Your task to perform on an android device: open app "Google Pay: Save, Pay, Manage" (install if not already installed) Image 0: 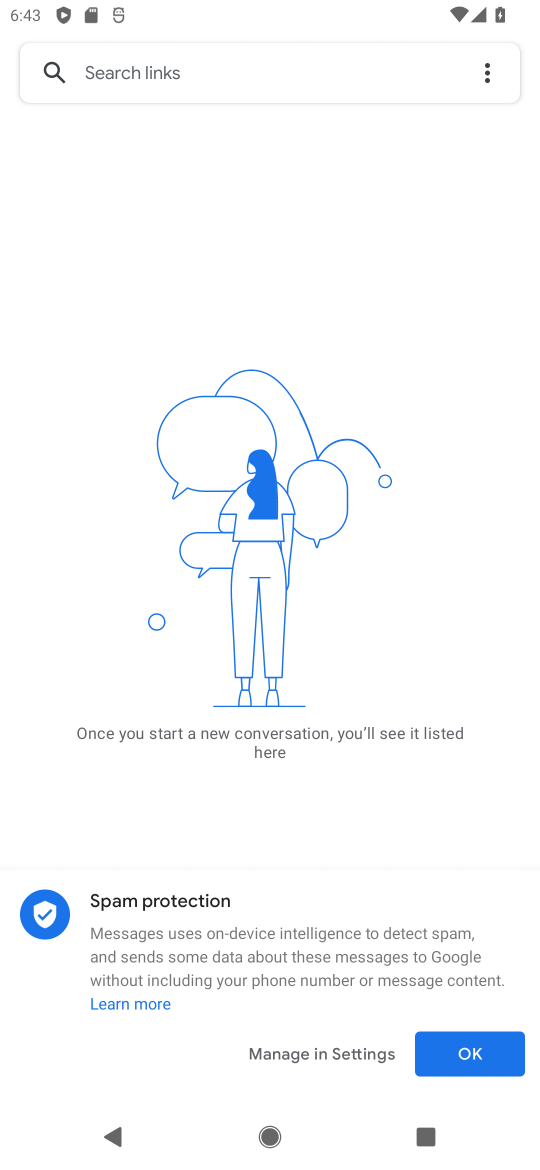
Step 0: press home button
Your task to perform on an android device: open app "Google Pay: Save, Pay, Manage" (install if not already installed) Image 1: 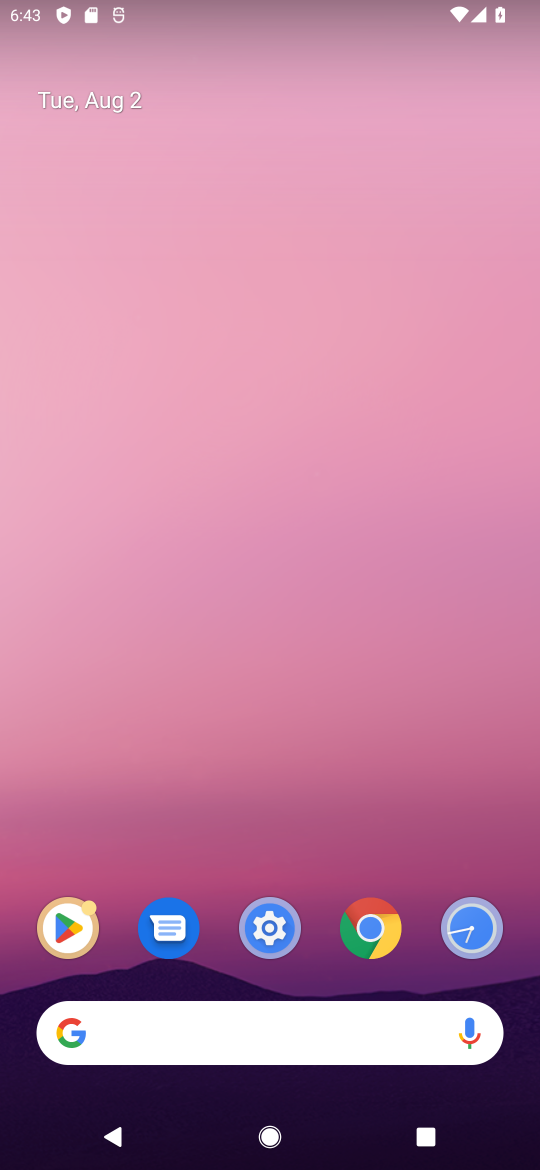
Step 1: click (81, 909)
Your task to perform on an android device: open app "Google Pay: Save, Pay, Manage" (install if not already installed) Image 2: 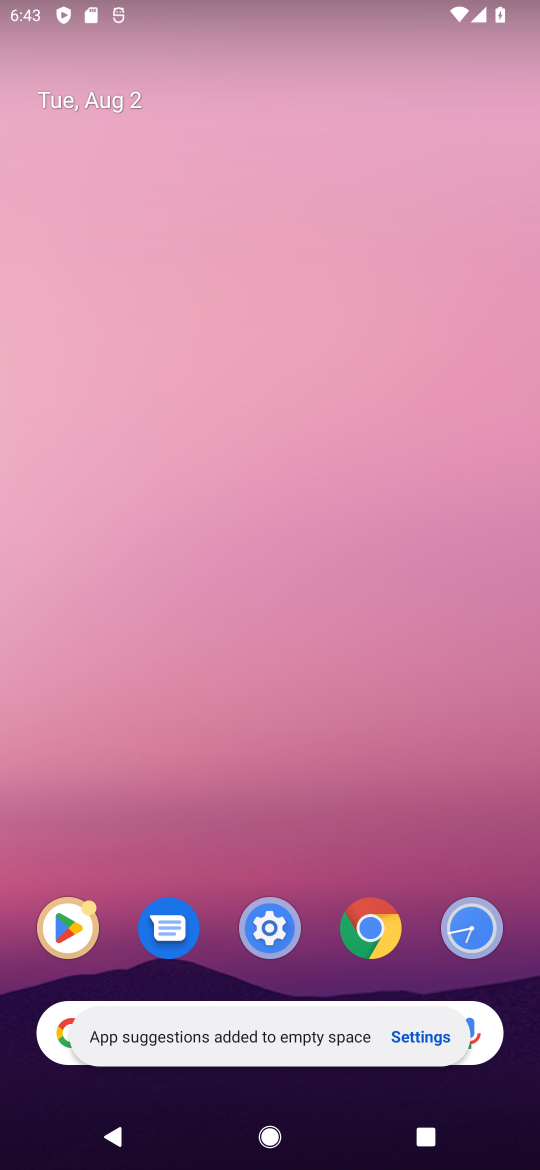
Step 2: click (71, 915)
Your task to perform on an android device: open app "Google Pay: Save, Pay, Manage" (install if not already installed) Image 3: 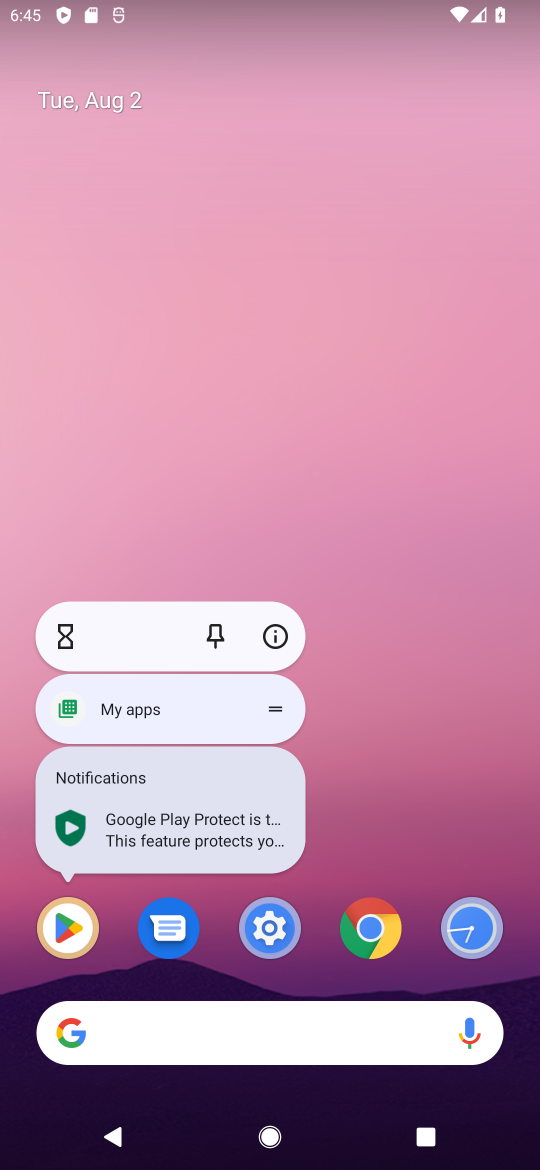
Step 3: click (39, 934)
Your task to perform on an android device: open app "Google Pay: Save, Pay, Manage" (install if not already installed) Image 4: 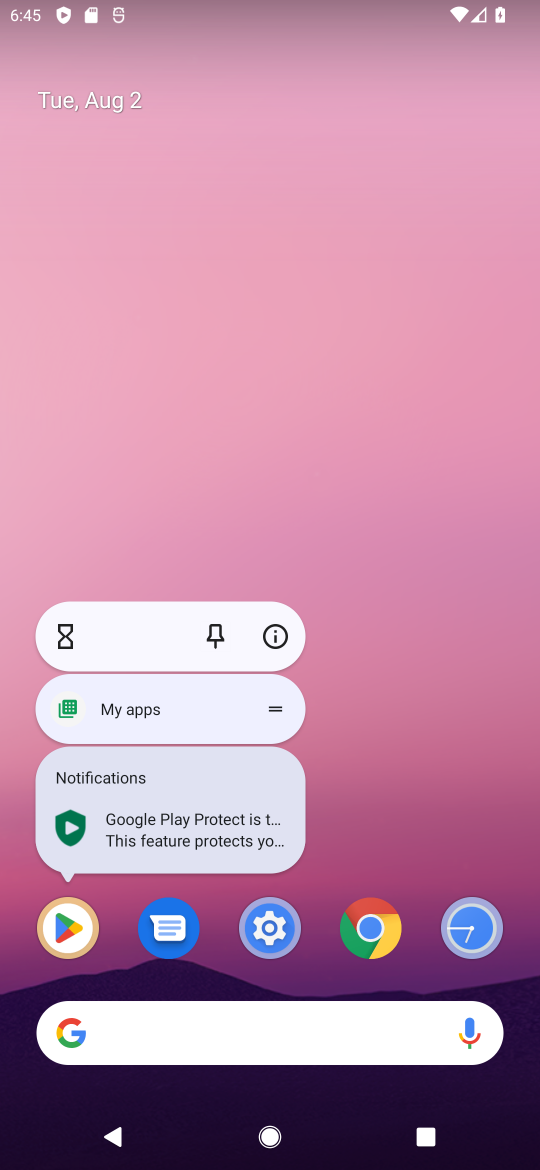
Step 4: click (44, 939)
Your task to perform on an android device: open app "Google Pay: Save, Pay, Manage" (install if not already installed) Image 5: 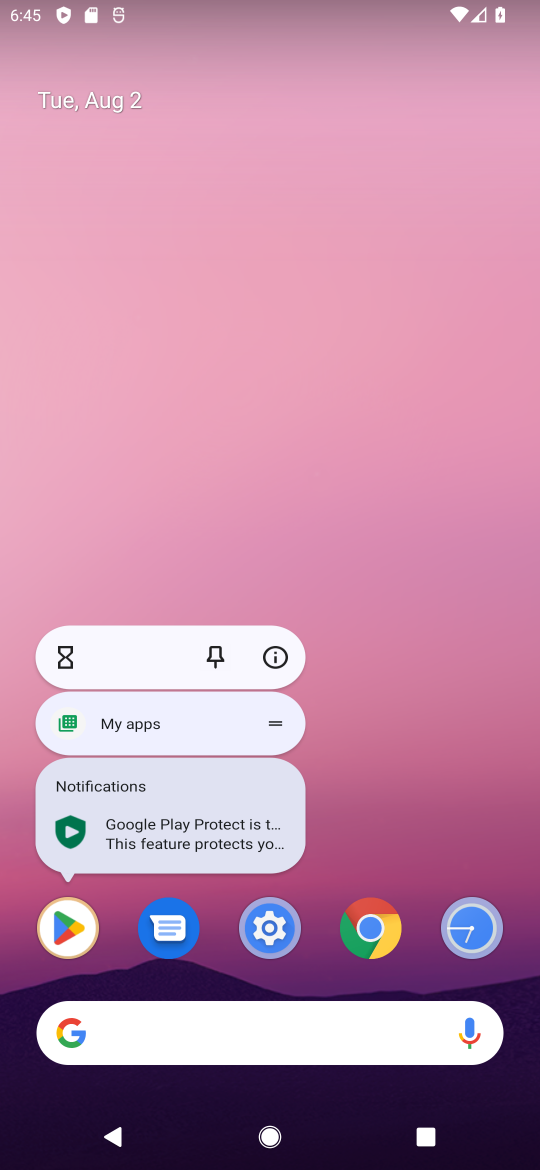
Step 5: click (101, 946)
Your task to perform on an android device: open app "Google Pay: Save, Pay, Manage" (install if not already installed) Image 6: 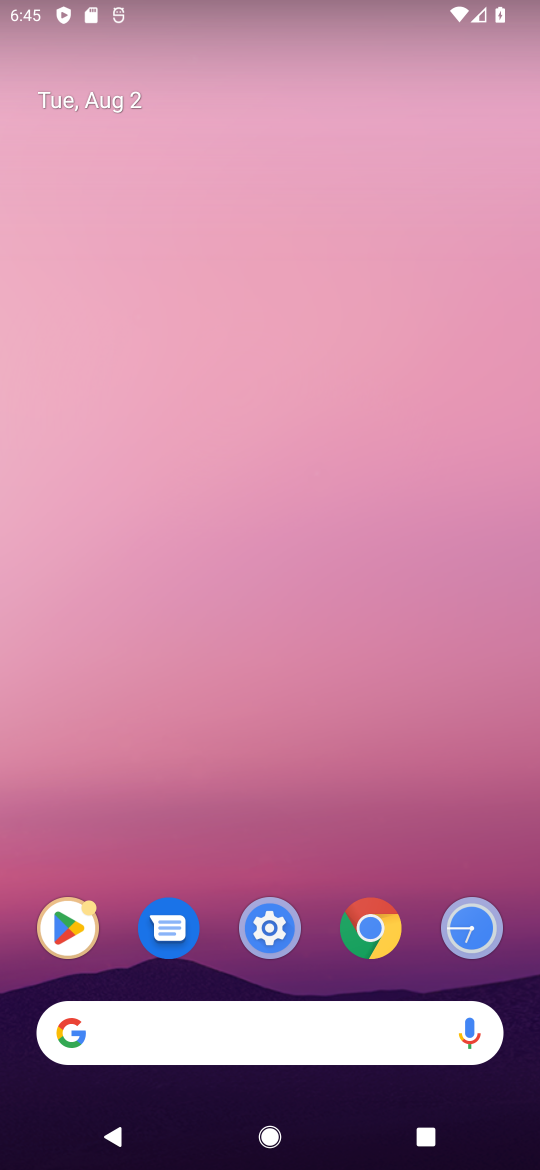
Step 6: click (56, 908)
Your task to perform on an android device: open app "Google Pay: Save, Pay, Manage" (install if not already installed) Image 7: 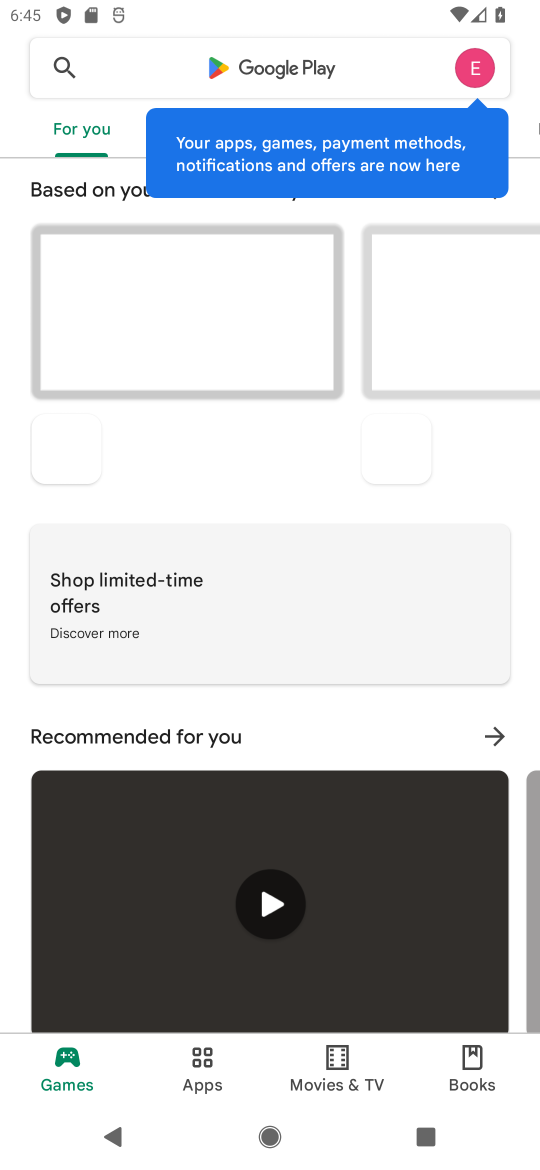
Step 7: click (349, 61)
Your task to perform on an android device: open app "Google Pay: Save, Pay, Manage" (install if not already installed) Image 8: 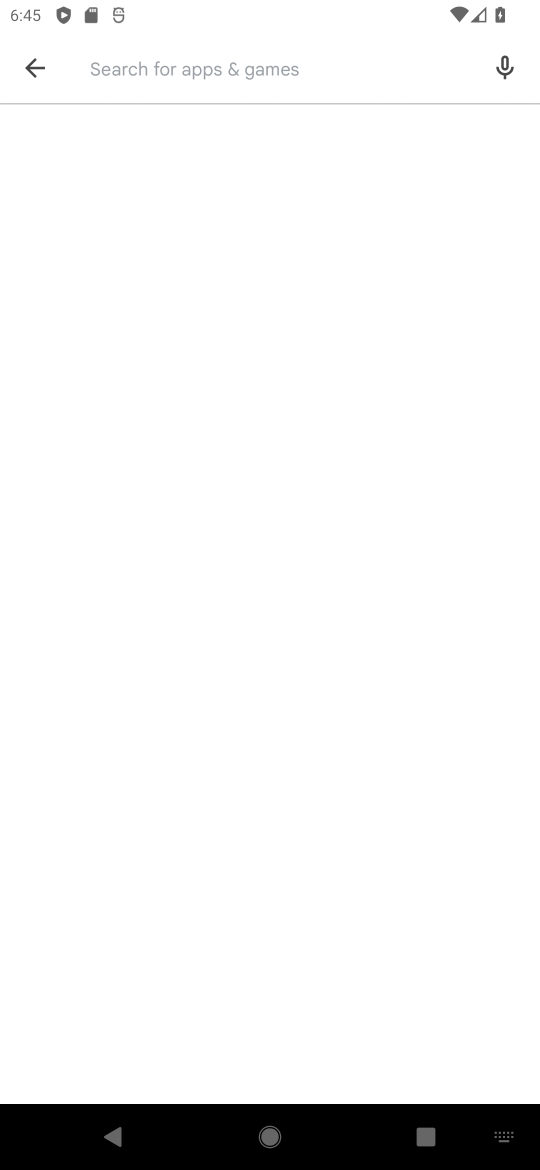
Step 8: type "google pay "
Your task to perform on an android device: open app "Google Pay: Save, Pay, Manage" (install if not already installed) Image 9: 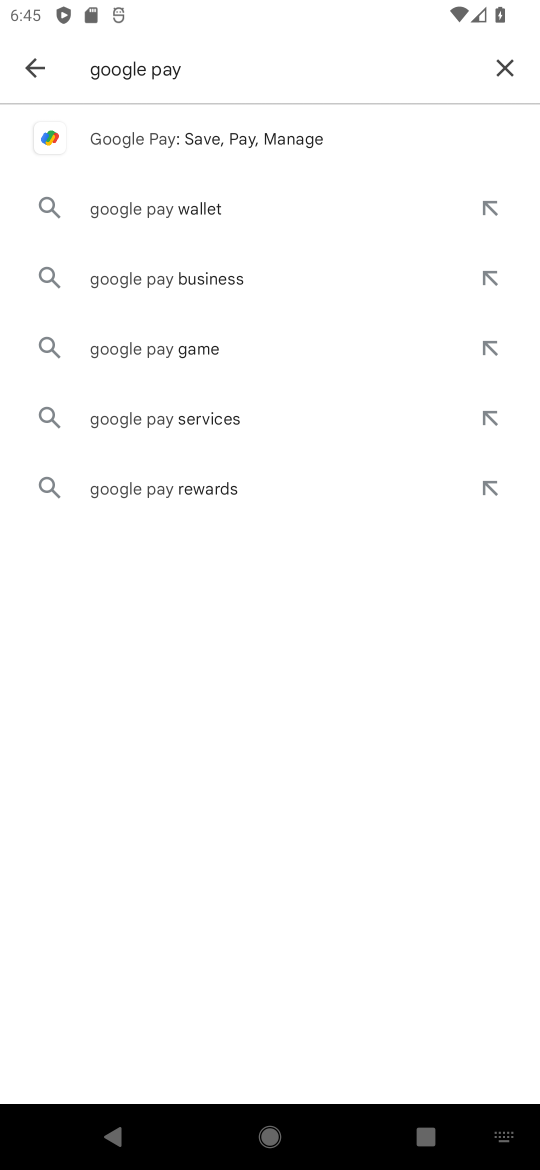
Step 9: click (355, 138)
Your task to perform on an android device: open app "Google Pay: Save, Pay, Manage" (install if not already installed) Image 10: 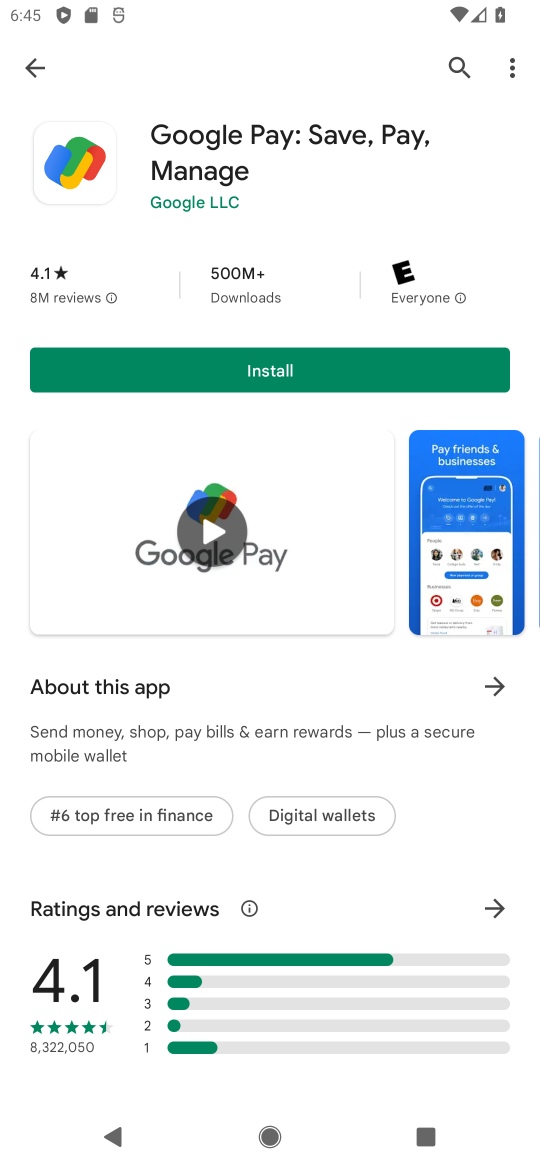
Step 10: click (359, 357)
Your task to perform on an android device: open app "Google Pay: Save, Pay, Manage" (install if not already installed) Image 11: 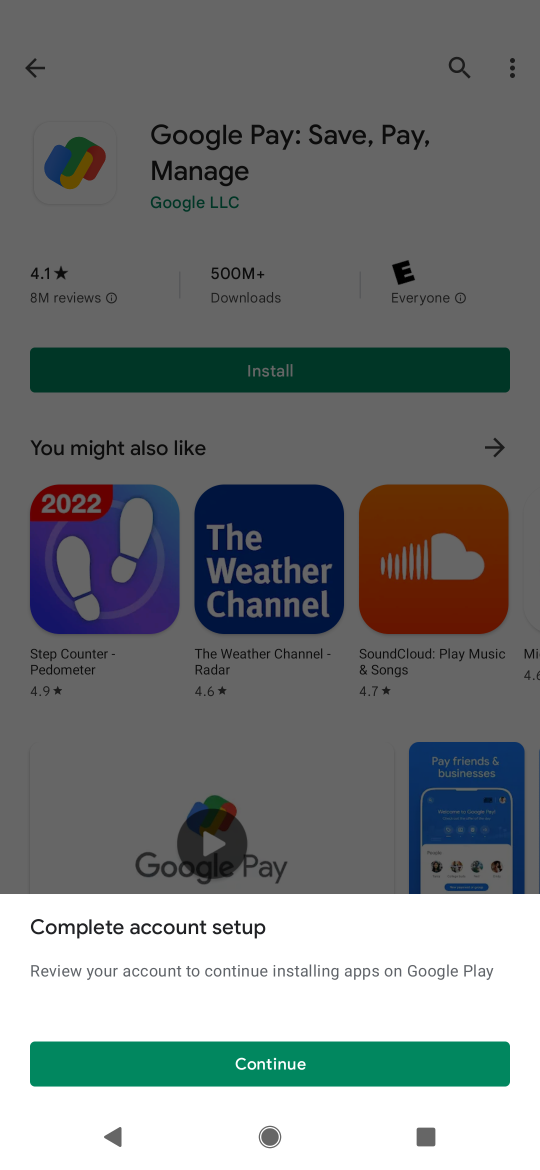
Step 11: click (436, 1079)
Your task to perform on an android device: open app "Google Pay: Save, Pay, Manage" (install if not already installed) Image 12: 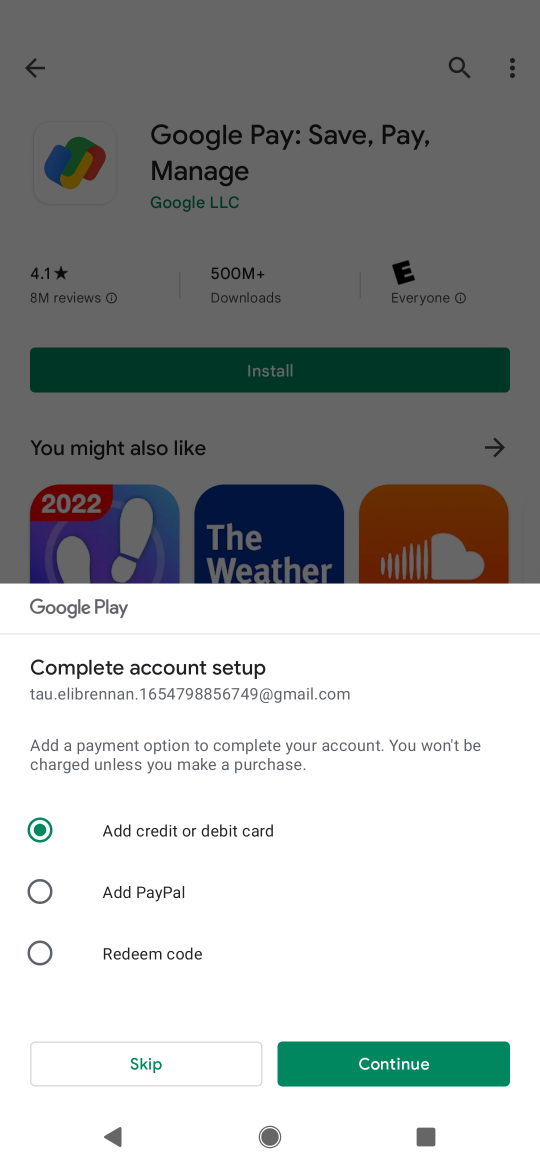
Step 12: click (149, 1073)
Your task to perform on an android device: open app "Google Pay: Save, Pay, Manage" (install if not already installed) Image 13: 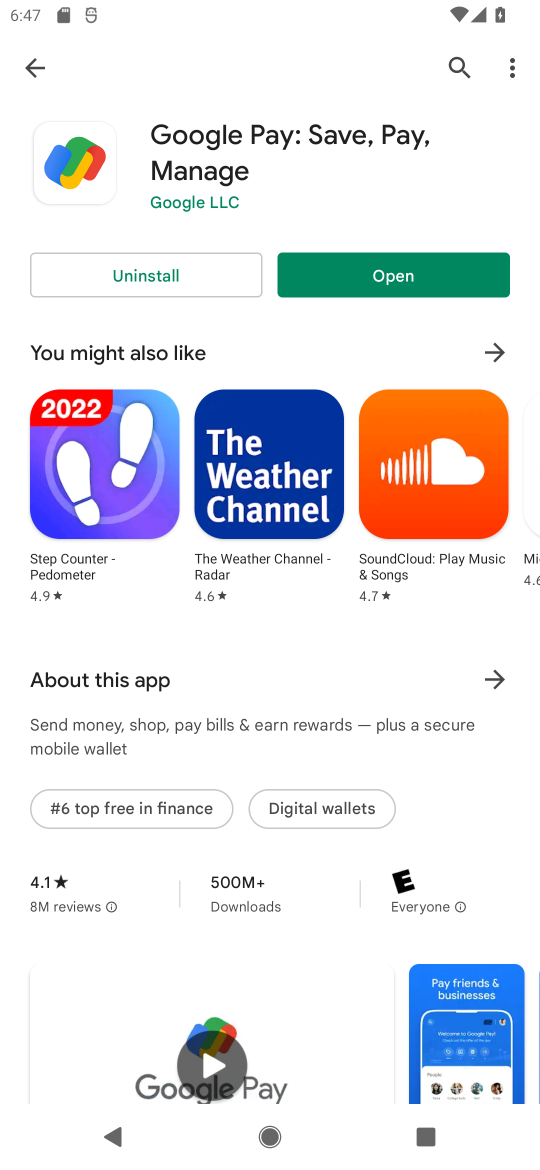
Step 13: click (454, 274)
Your task to perform on an android device: open app "Google Pay: Save, Pay, Manage" (install if not already installed) Image 14: 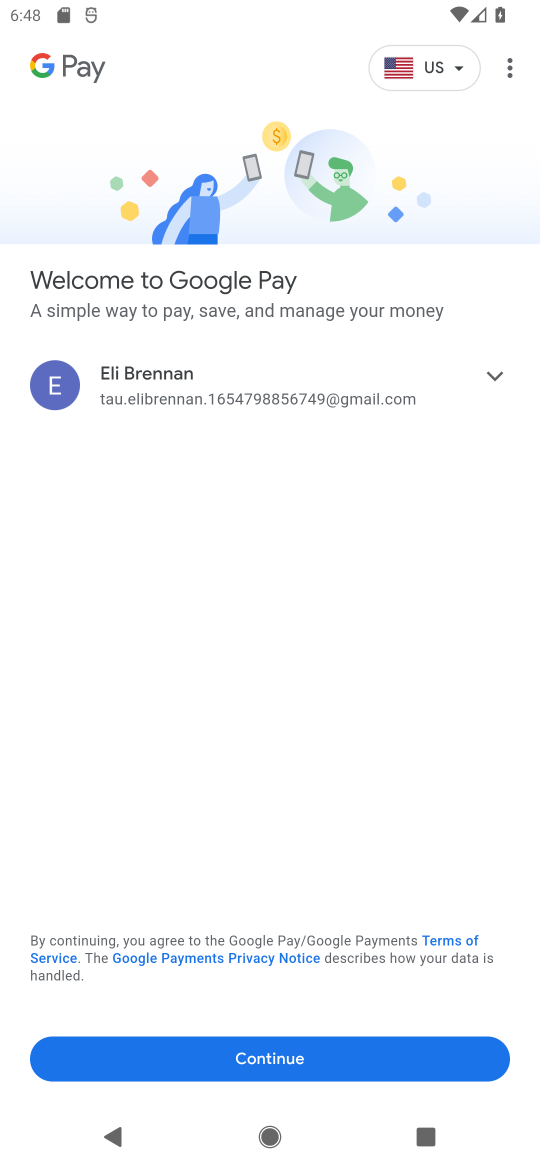
Step 14: press home button
Your task to perform on an android device: open app "Google Pay: Save, Pay, Manage" (install if not already installed) Image 15: 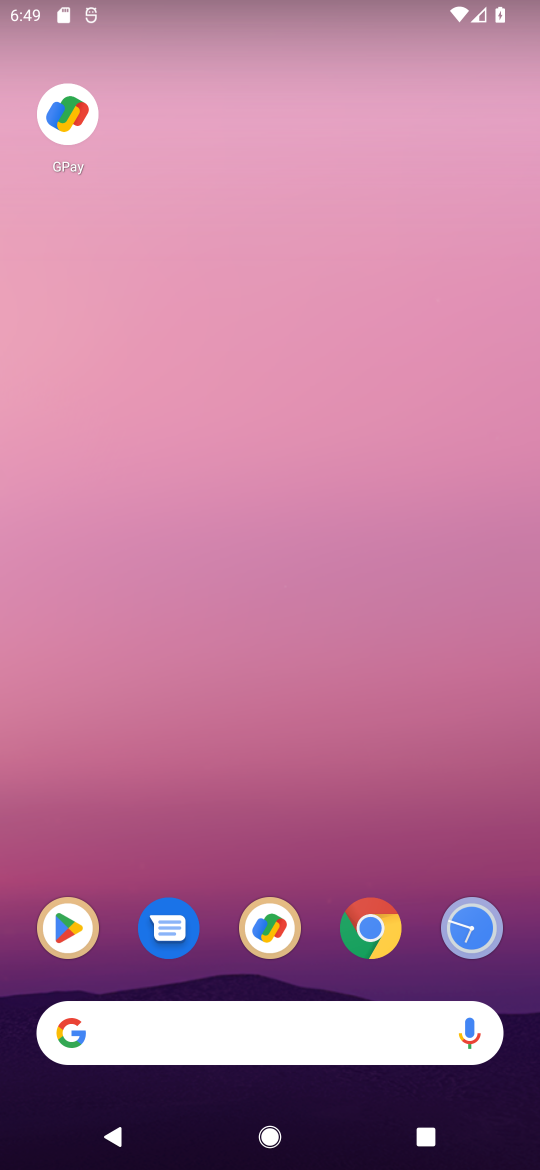
Step 15: click (84, 947)
Your task to perform on an android device: open app "Google Pay: Save, Pay, Manage" (install if not already installed) Image 16: 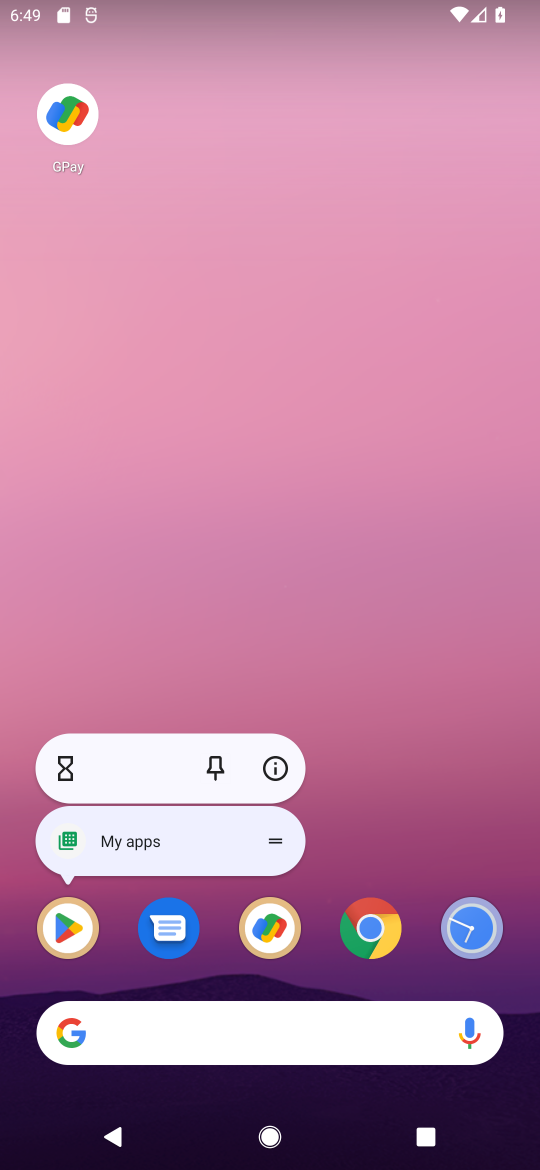
Step 16: click (70, 944)
Your task to perform on an android device: open app "Google Pay: Save, Pay, Manage" (install if not already installed) Image 17: 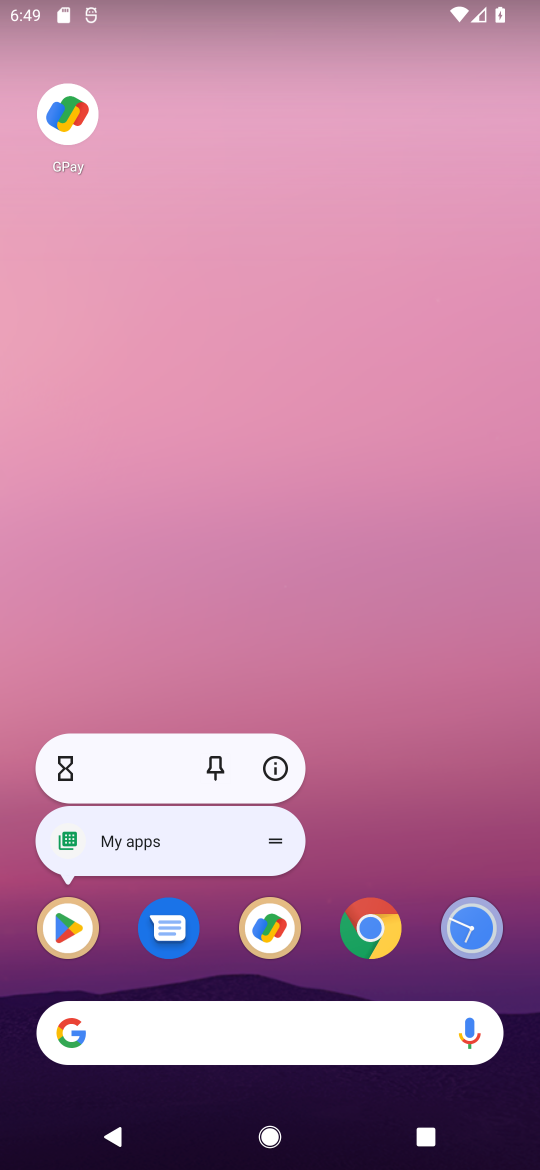
Step 17: click (70, 944)
Your task to perform on an android device: open app "Google Pay: Save, Pay, Manage" (install if not already installed) Image 18: 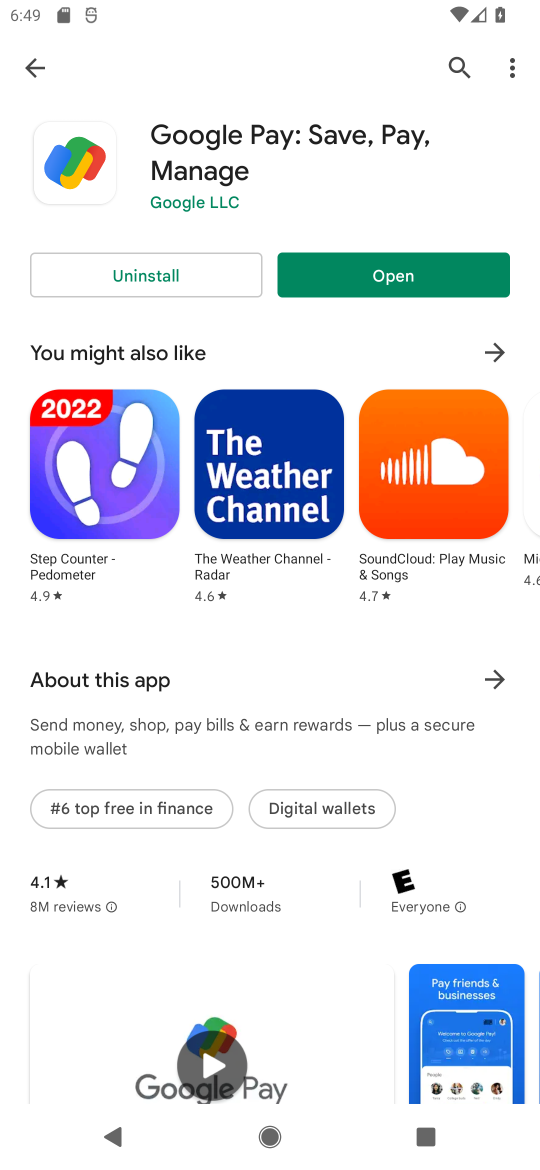
Step 18: click (70, 944)
Your task to perform on an android device: open app "Google Pay: Save, Pay, Manage" (install if not already installed) Image 19: 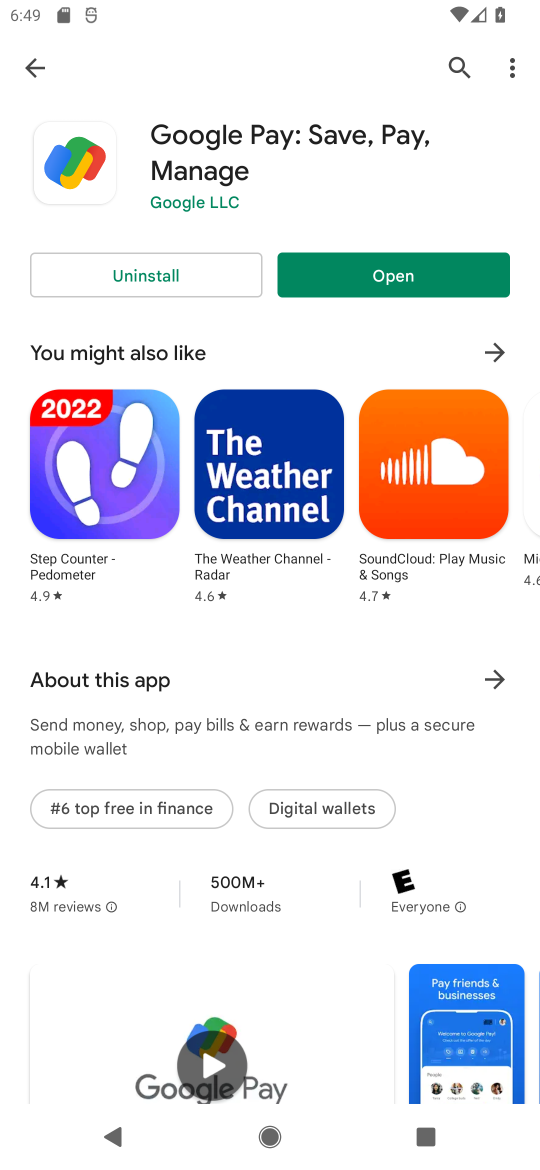
Step 19: click (334, 270)
Your task to perform on an android device: open app "Google Pay: Save, Pay, Manage" (install if not already installed) Image 20: 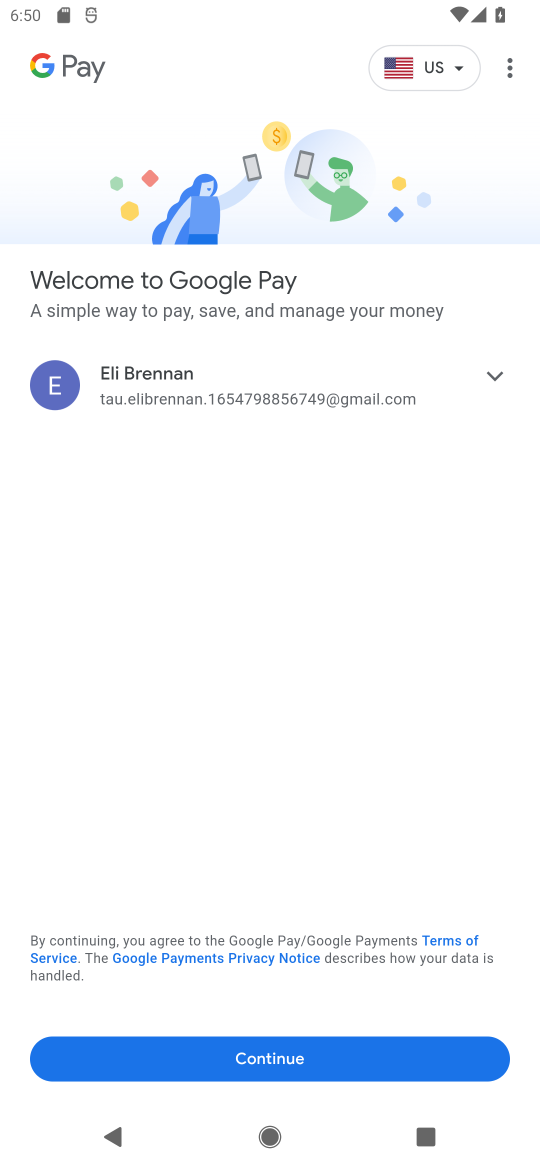
Step 20: task complete